Your task to perform on an android device: toggle show notifications on the lock screen Image 0: 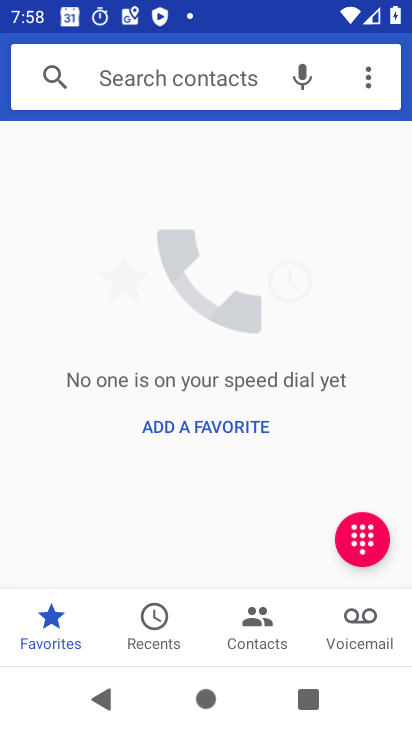
Step 0: press home button
Your task to perform on an android device: toggle show notifications on the lock screen Image 1: 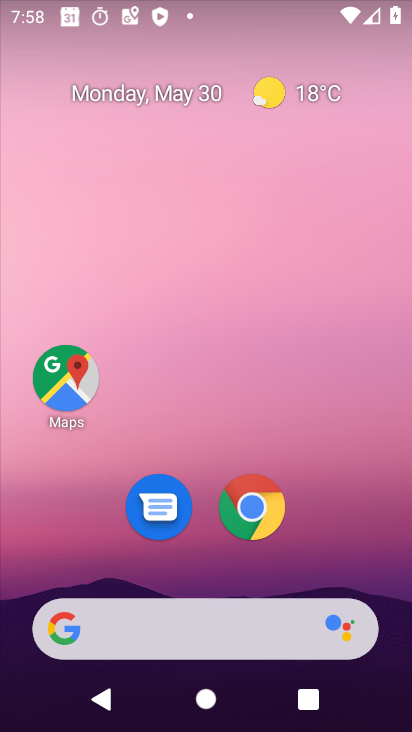
Step 1: drag from (407, 537) to (400, 57)
Your task to perform on an android device: toggle show notifications on the lock screen Image 2: 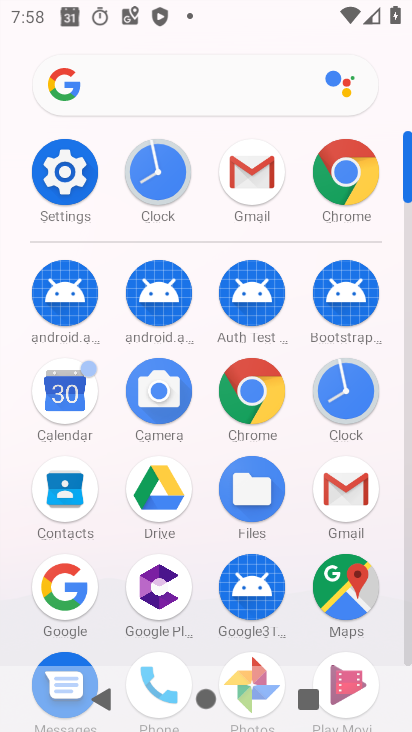
Step 2: click (64, 188)
Your task to perform on an android device: toggle show notifications on the lock screen Image 3: 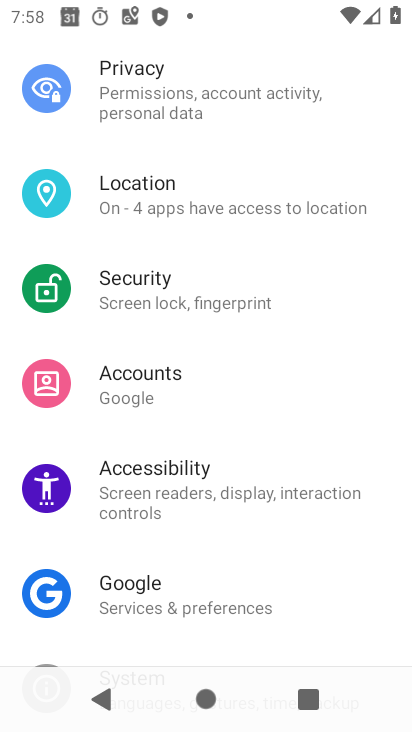
Step 3: drag from (274, 194) to (352, 647)
Your task to perform on an android device: toggle show notifications on the lock screen Image 4: 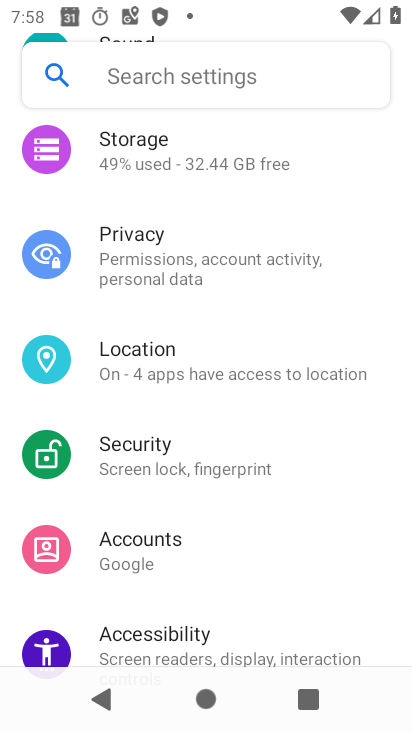
Step 4: drag from (294, 202) to (348, 605)
Your task to perform on an android device: toggle show notifications on the lock screen Image 5: 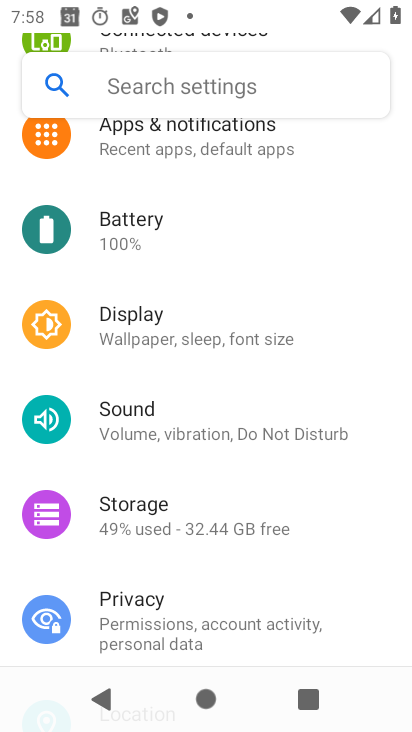
Step 5: click (259, 151)
Your task to perform on an android device: toggle show notifications on the lock screen Image 6: 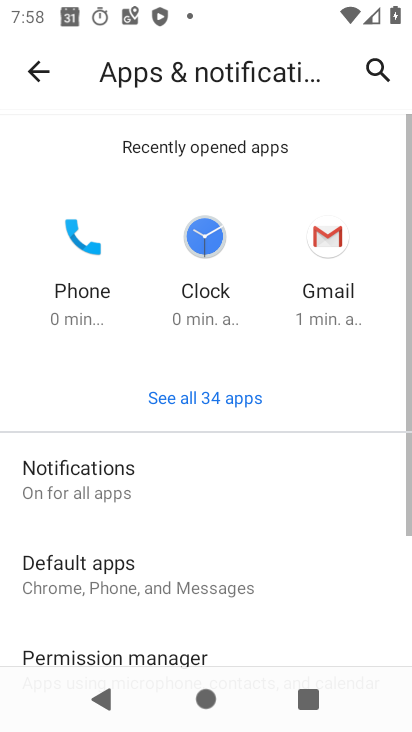
Step 6: click (98, 491)
Your task to perform on an android device: toggle show notifications on the lock screen Image 7: 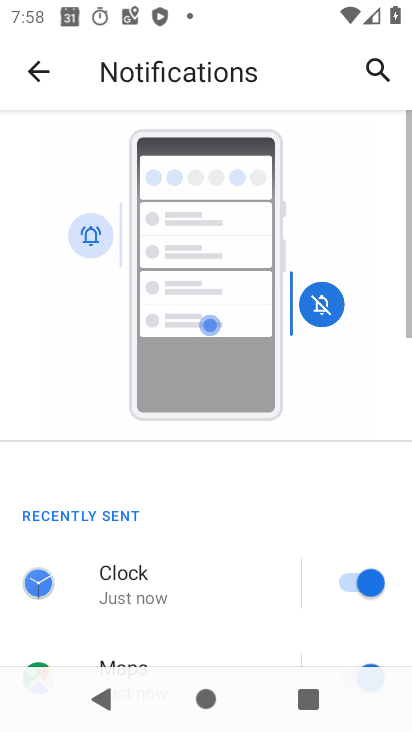
Step 7: drag from (239, 620) to (236, 170)
Your task to perform on an android device: toggle show notifications on the lock screen Image 8: 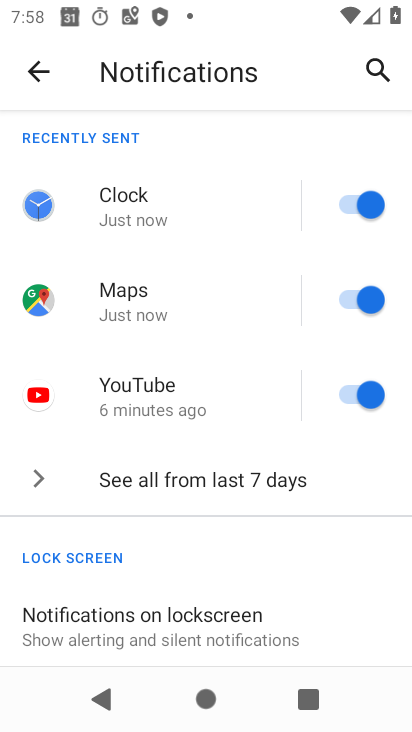
Step 8: drag from (210, 550) to (215, 249)
Your task to perform on an android device: toggle show notifications on the lock screen Image 9: 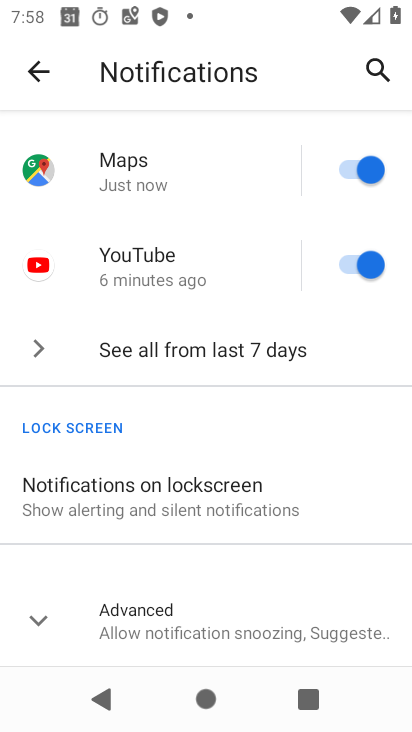
Step 9: click (216, 520)
Your task to perform on an android device: toggle show notifications on the lock screen Image 10: 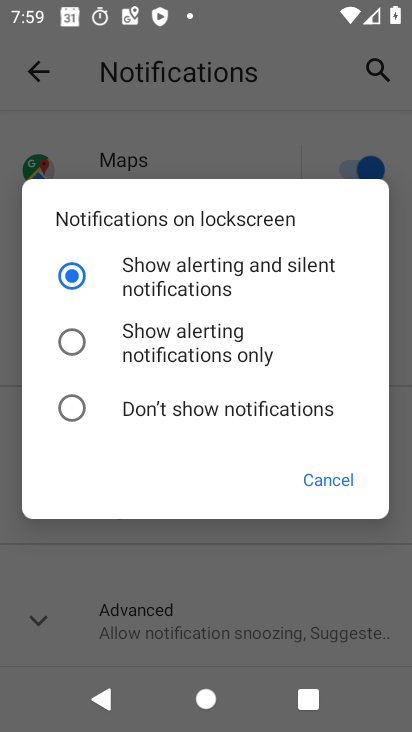
Step 10: click (72, 409)
Your task to perform on an android device: toggle show notifications on the lock screen Image 11: 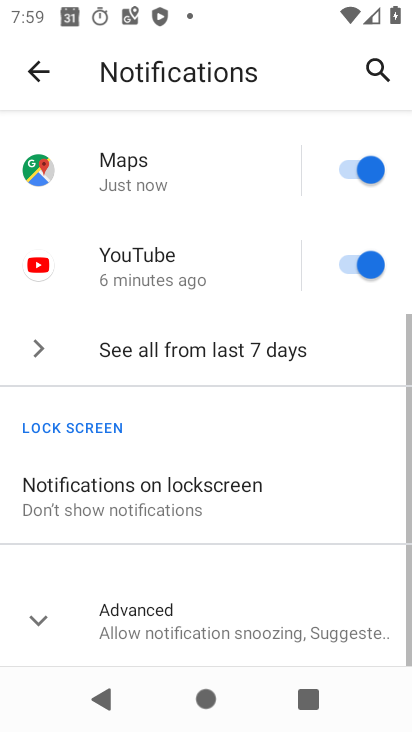
Step 11: task complete